Your task to perform on an android device: clear history in the chrome app Image 0: 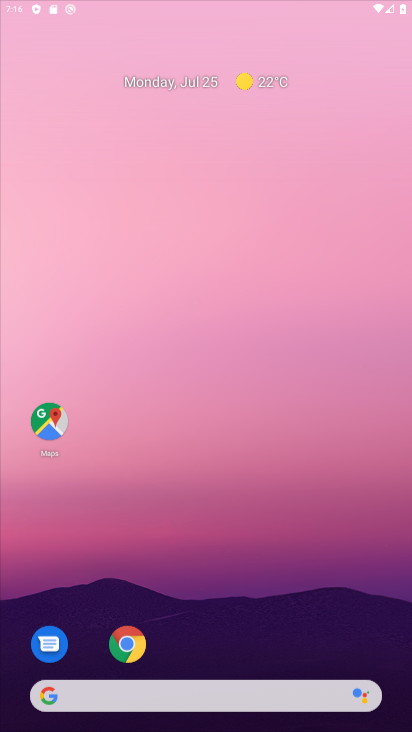
Step 0: press home button
Your task to perform on an android device: clear history in the chrome app Image 1: 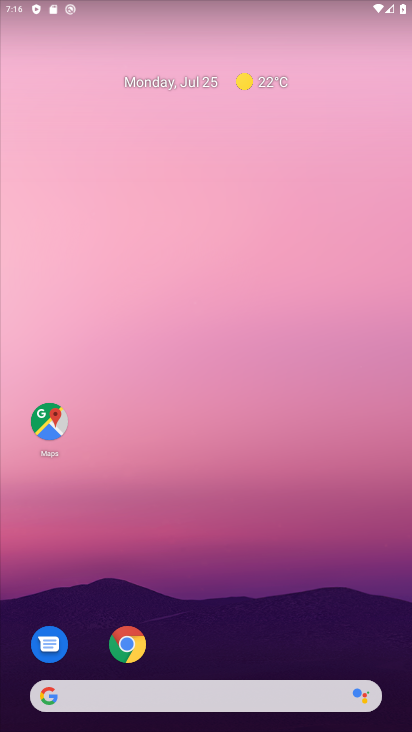
Step 1: click (124, 641)
Your task to perform on an android device: clear history in the chrome app Image 2: 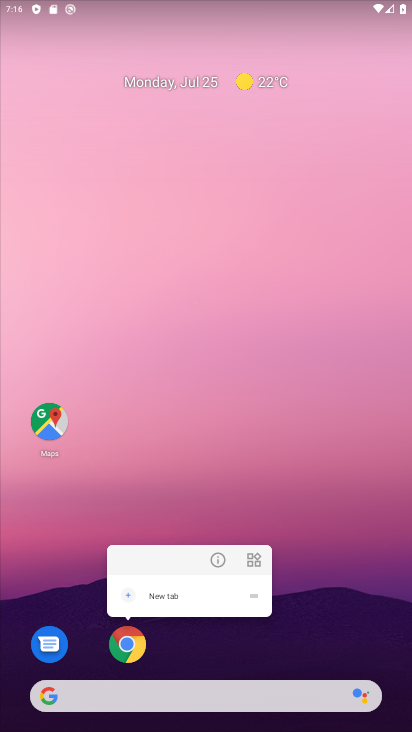
Step 2: click (127, 638)
Your task to perform on an android device: clear history in the chrome app Image 3: 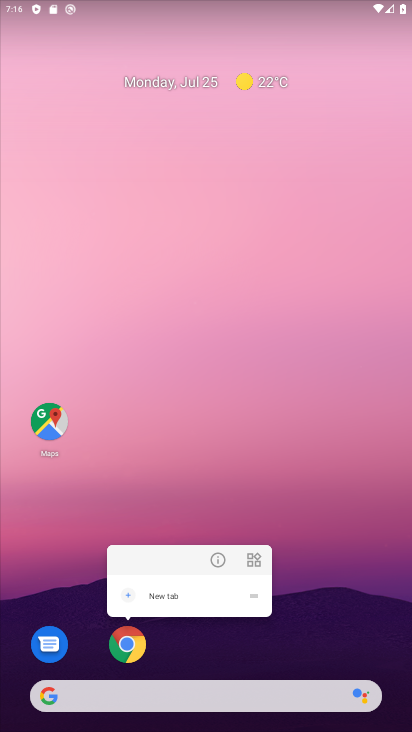
Step 3: click (121, 641)
Your task to perform on an android device: clear history in the chrome app Image 4: 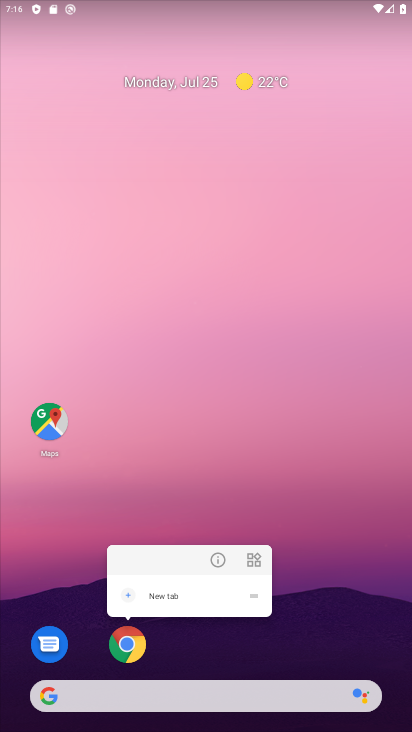
Step 4: click (323, 650)
Your task to perform on an android device: clear history in the chrome app Image 5: 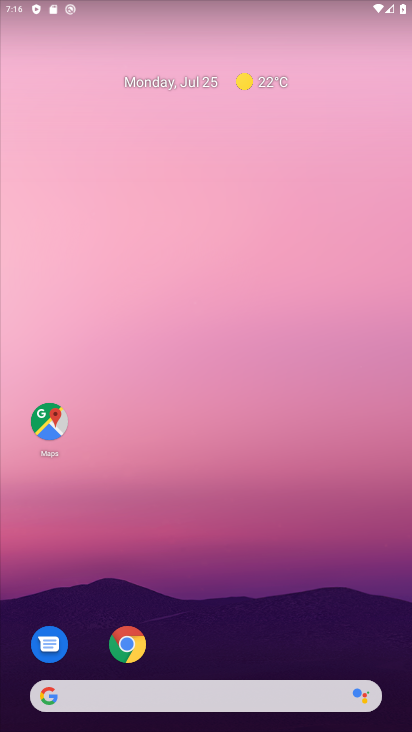
Step 5: drag from (332, 661) to (373, 23)
Your task to perform on an android device: clear history in the chrome app Image 6: 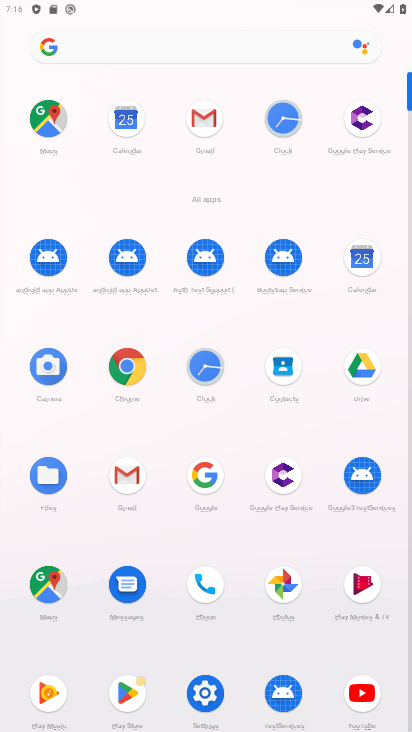
Step 6: click (125, 361)
Your task to perform on an android device: clear history in the chrome app Image 7: 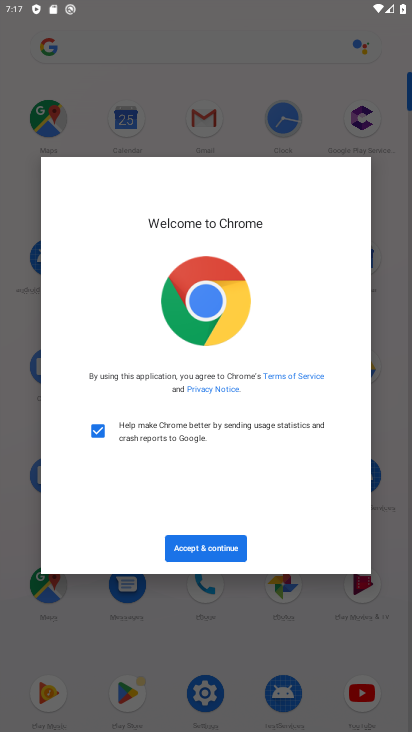
Step 7: click (200, 543)
Your task to perform on an android device: clear history in the chrome app Image 8: 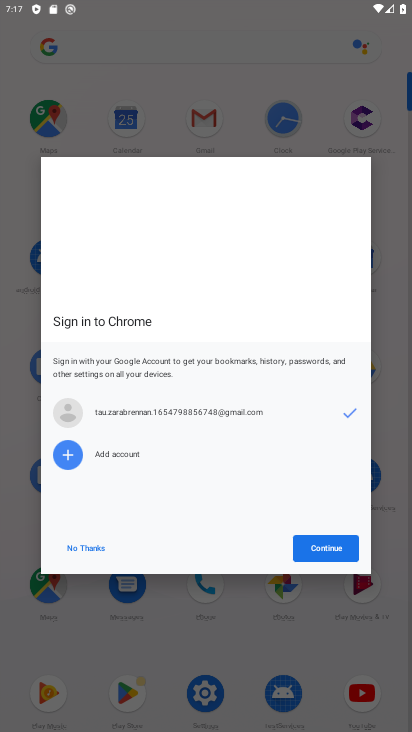
Step 8: click (328, 544)
Your task to perform on an android device: clear history in the chrome app Image 9: 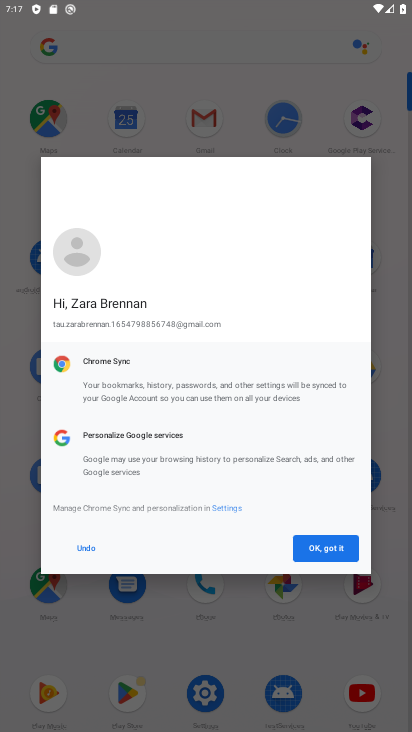
Step 9: click (322, 550)
Your task to perform on an android device: clear history in the chrome app Image 10: 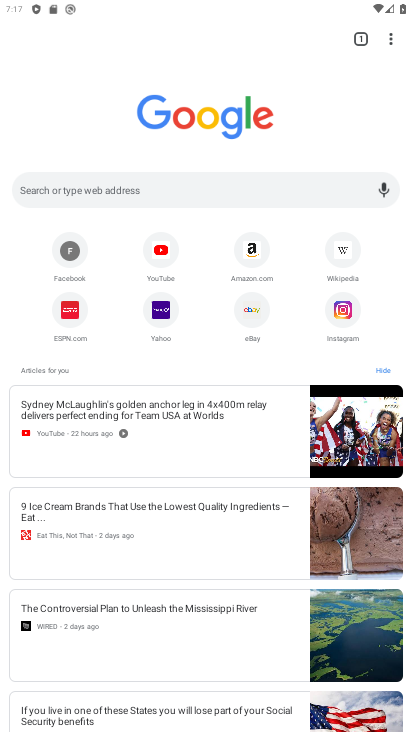
Step 10: click (389, 33)
Your task to perform on an android device: clear history in the chrome app Image 11: 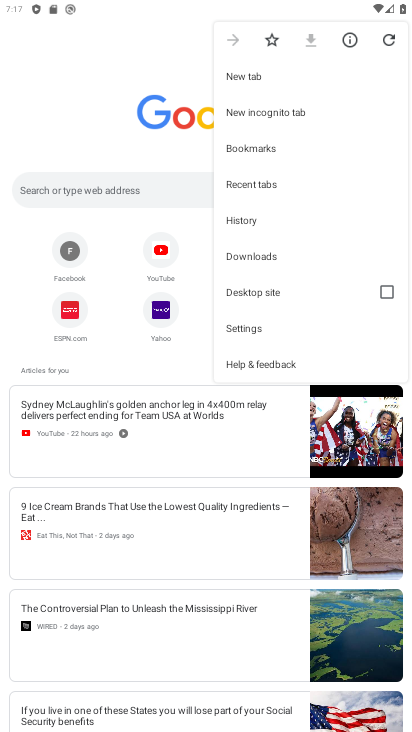
Step 11: click (256, 216)
Your task to perform on an android device: clear history in the chrome app Image 12: 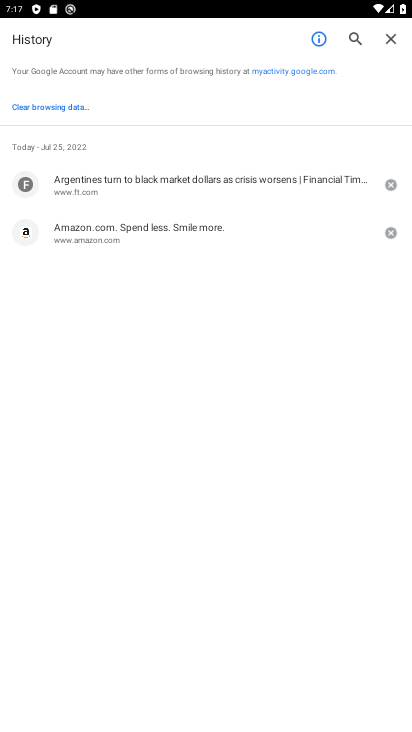
Step 12: click (47, 104)
Your task to perform on an android device: clear history in the chrome app Image 13: 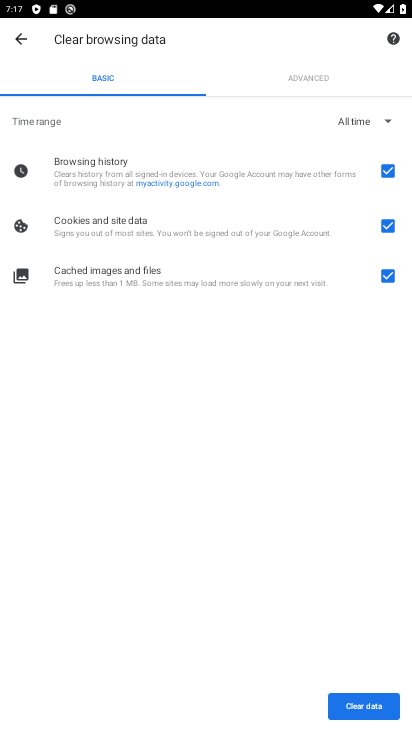
Step 13: click (367, 702)
Your task to perform on an android device: clear history in the chrome app Image 14: 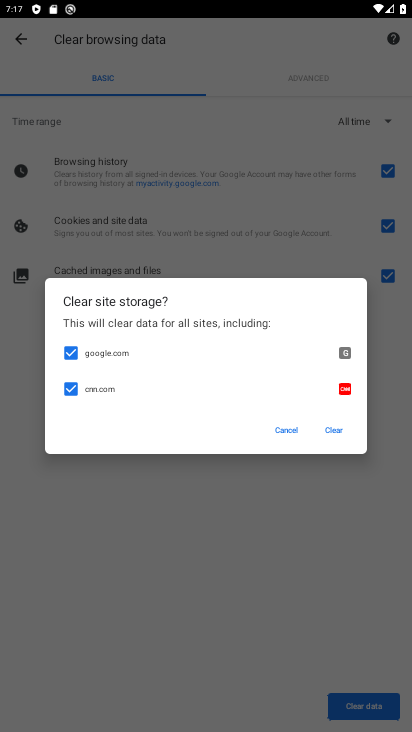
Step 14: click (340, 423)
Your task to perform on an android device: clear history in the chrome app Image 15: 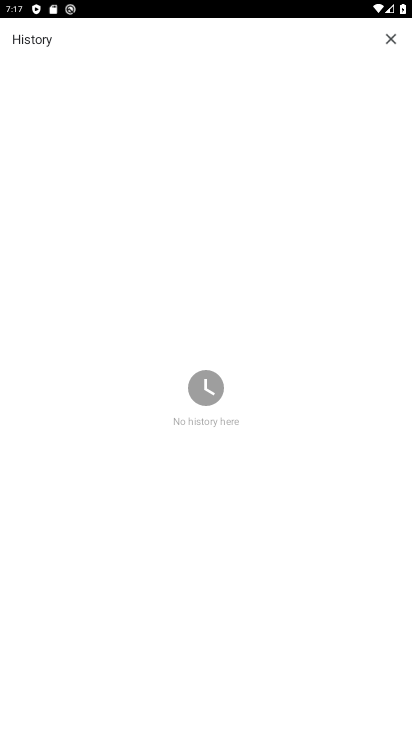
Step 15: task complete